Your task to perform on an android device: check battery use Image 0: 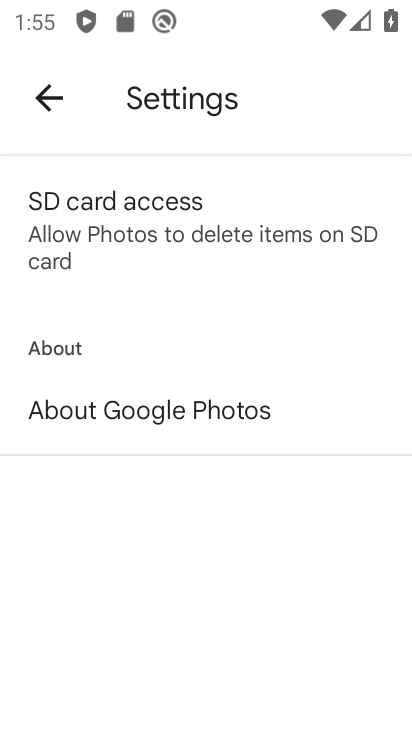
Step 0: click (48, 90)
Your task to perform on an android device: check battery use Image 1: 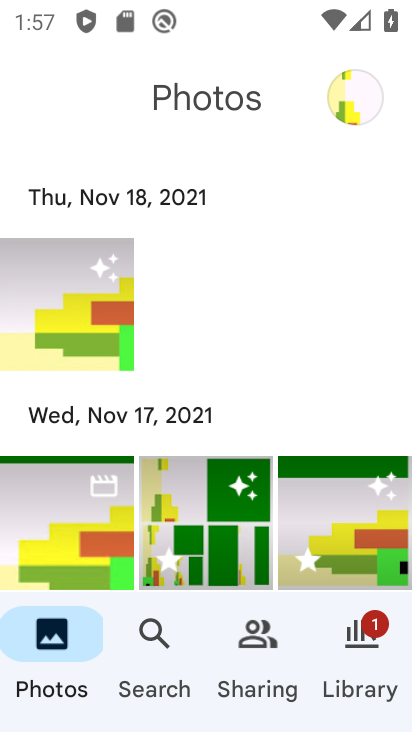
Step 1: press home button
Your task to perform on an android device: check battery use Image 2: 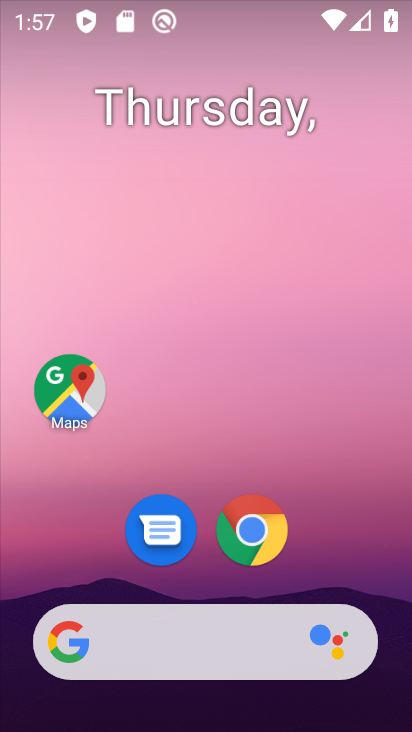
Step 2: drag from (271, 718) to (258, 161)
Your task to perform on an android device: check battery use Image 3: 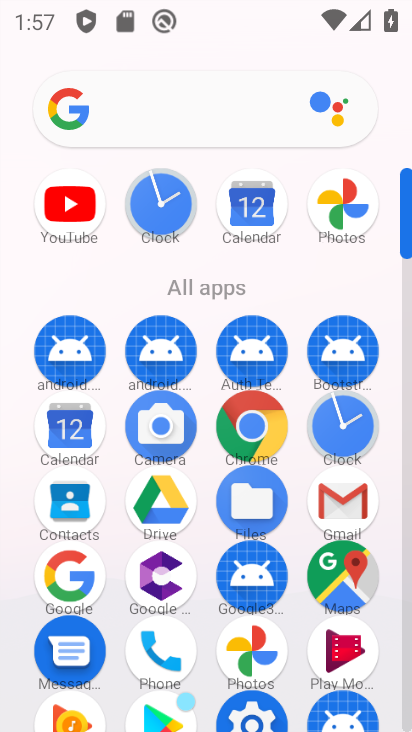
Step 3: drag from (361, 676) to (254, 62)
Your task to perform on an android device: check battery use Image 4: 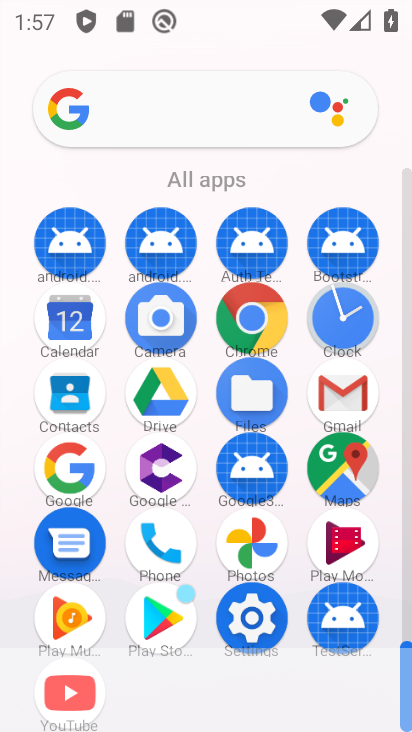
Step 4: click (261, 618)
Your task to perform on an android device: check battery use Image 5: 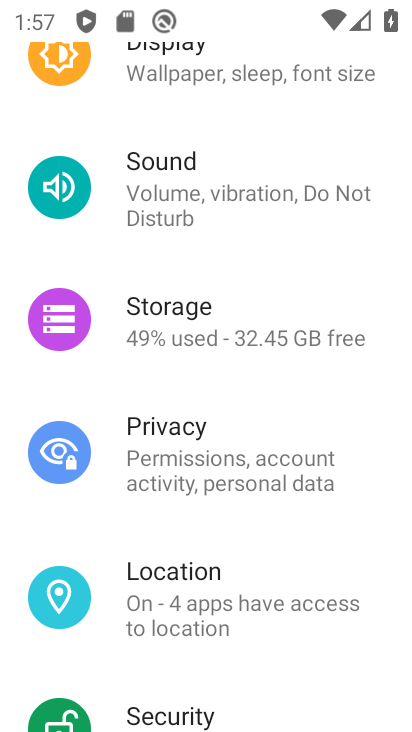
Step 5: drag from (337, 112) to (359, 698)
Your task to perform on an android device: check battery use Image 6: 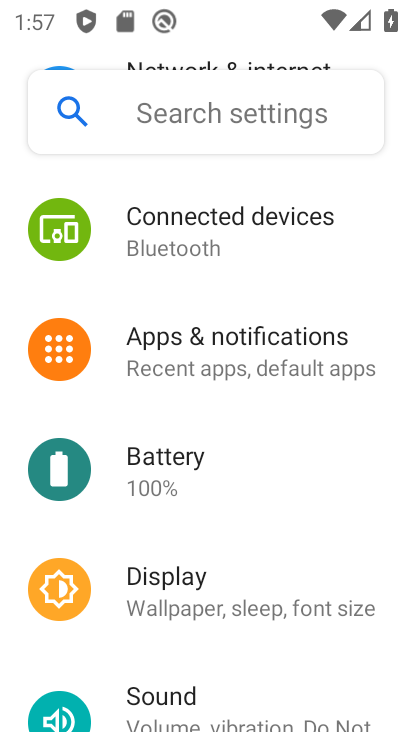
Step 6: click (109, 484)
Your task to perform on an android device: check battery use Image 7: 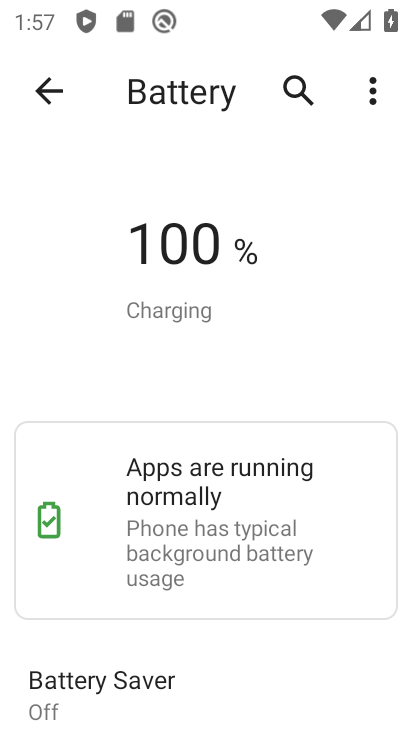
Step 7: click (370, 91)
Your task to perform on an android device: check battery use Image 8: 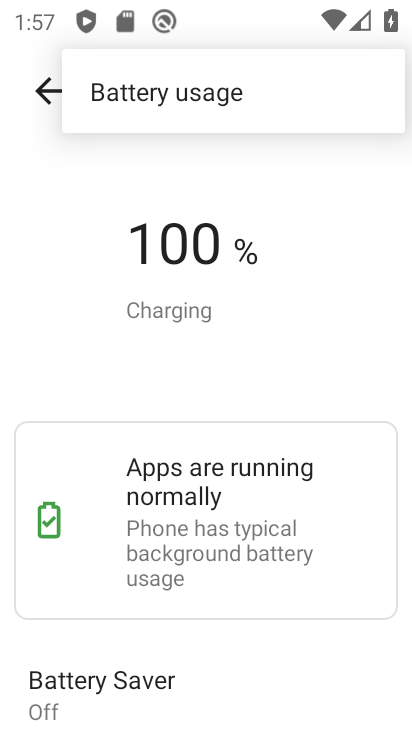
Step 8: click (318, 95)
Your task to perform on an android device: check battery use Image 9: 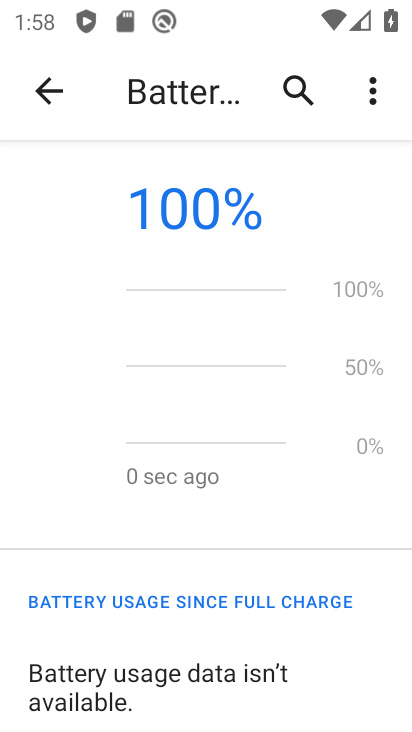
Step 9: task complete